Your task to perform on an android device: Open Amazon Image 0: 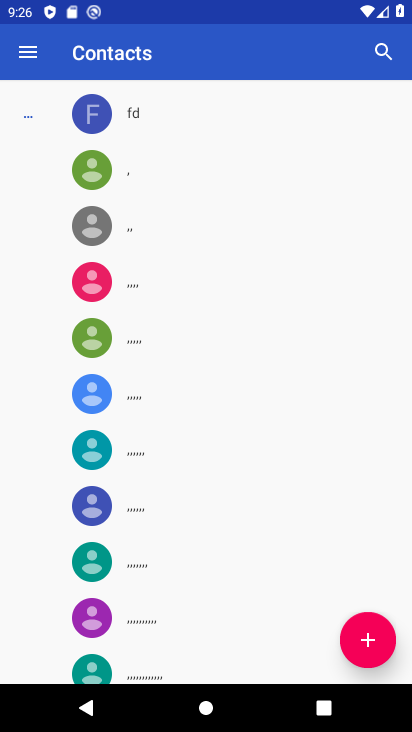
Step 0: press home button
Your task to perform on an android device: Open Amazon Image 1: 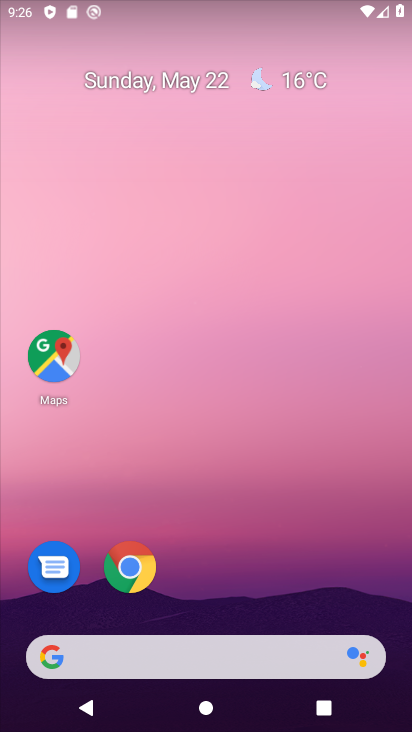
Step 1: click (131, 569)
Your task to perform on an android device: Open Amazon Image 2: 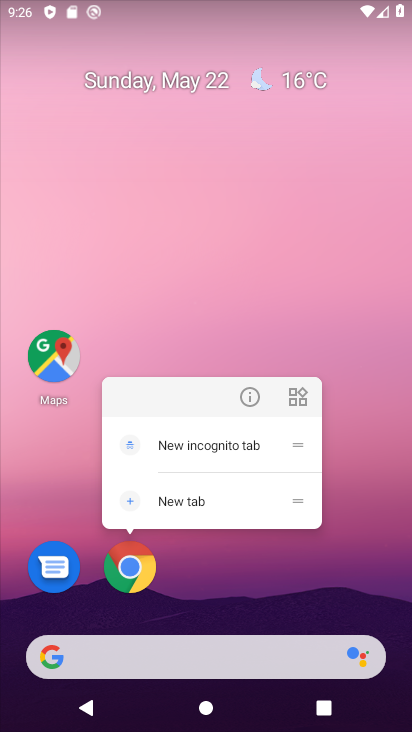
Step 2: click (131, 567)
Your task to perform on an android device: Open Amazon Image 3: 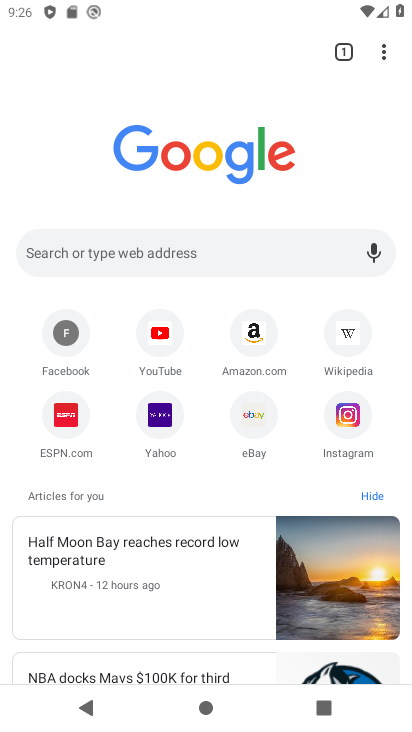
Step 3: click (259, 342)
Your task to perform on an android device: Open Amazon Image 4: 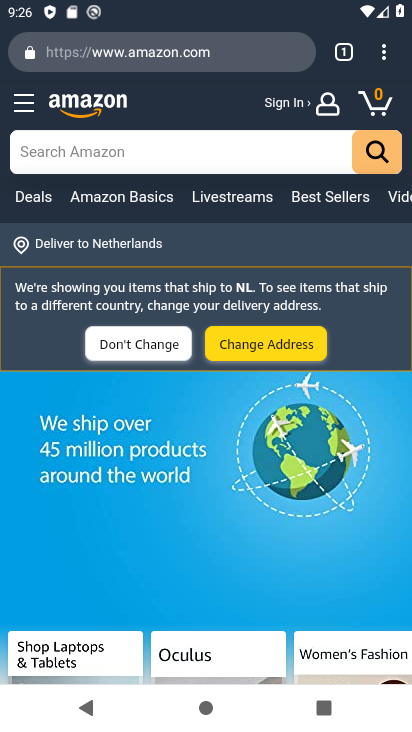
Step 4: task complete